Your task to perform on an android device: Open settings Image 0: 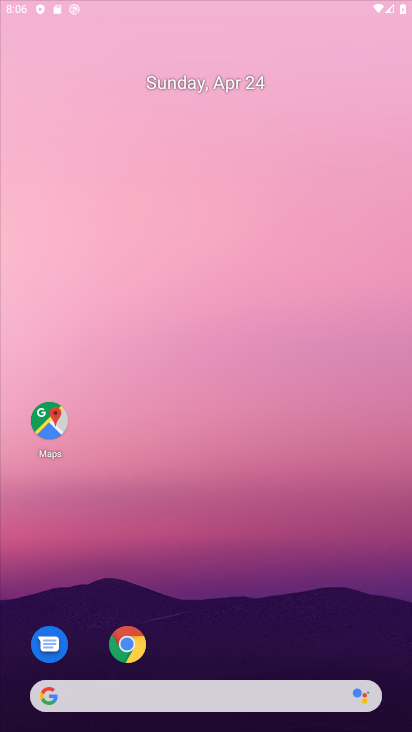
Step 0: click (171, 210)
Your task to perform on an android device: Open settings Image 1: 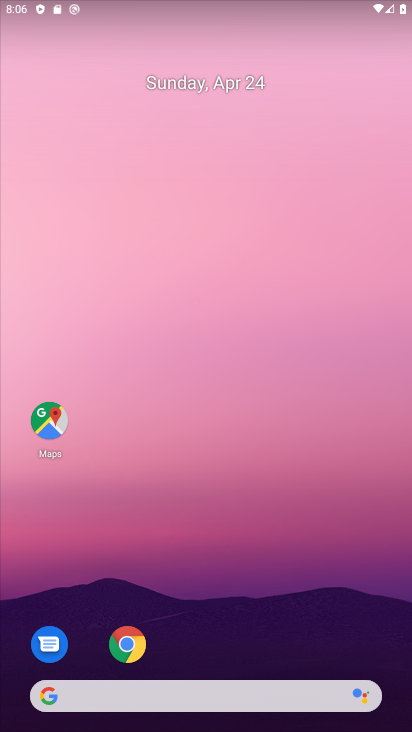
Step 1: drag from (182, 625) to (188, 175)
Your task to perform on an android device: Open settings Image 2: 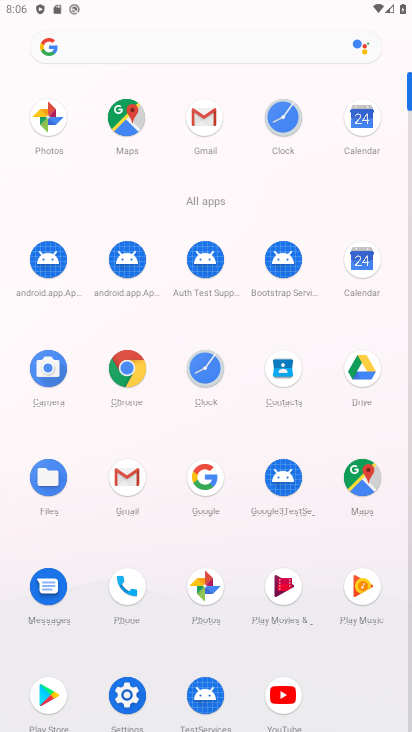
Step 2: click (128, 697)
Your task to perform on an android device: Open settings Image 3: 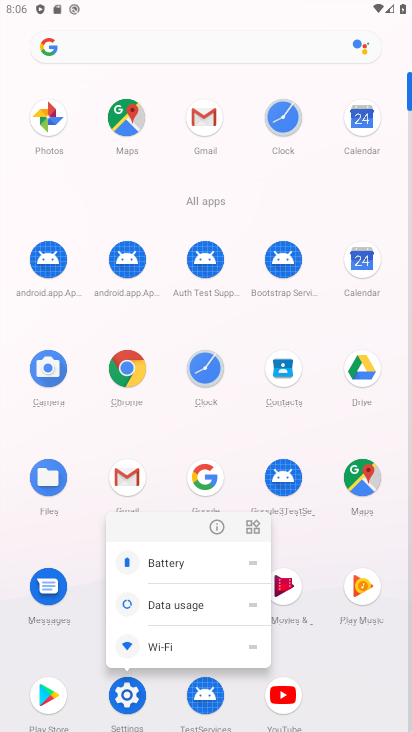
Step 3: click (216, 521)
Your task to perform on an android device: Open settings Image 4: 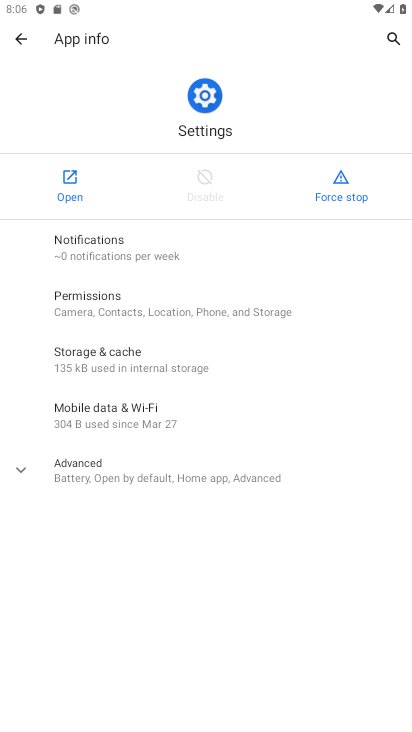
Step 4: click (68, 187)
Your task to perform on an android device: Open settings Image 5: 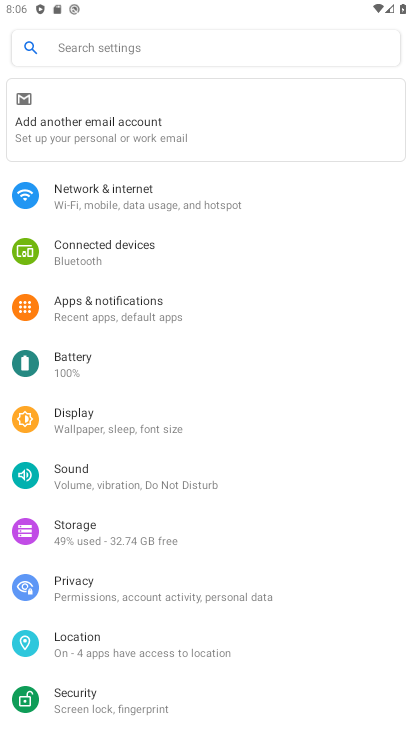
Step 5: task complete